Your task to perform on an android device: Open Yahoo.com Image 0: 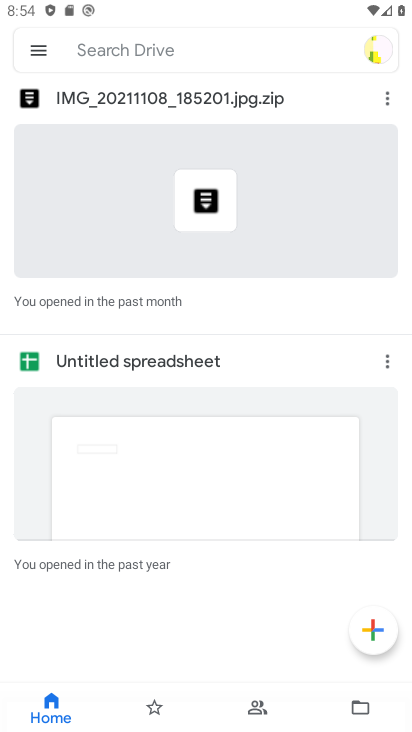
Step 0: press back button
Your task to perform on an android device: Open Yahoo.com Image 1: 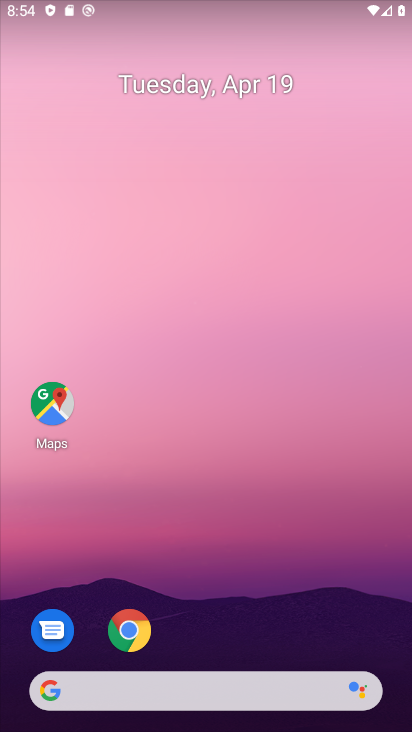
Step 1: click (134, 635)
Your task to perform on an android device: Open Yahoo.com Image 2: 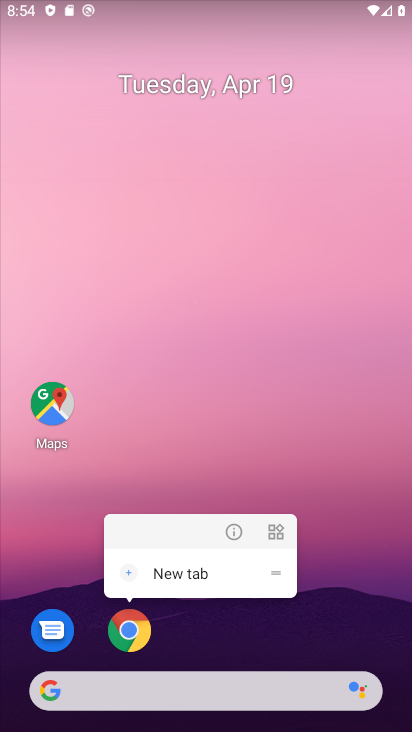
Step 2: click (131, 643)
Your task to perform on an android device: Open Yahoo.com Image 3: 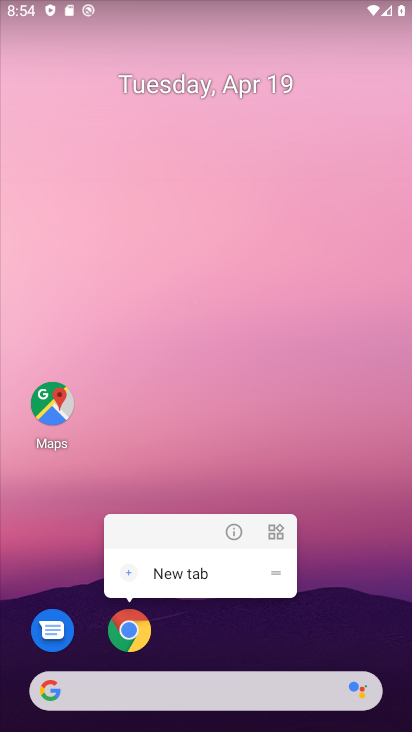
Step 3: click (130, 624)
Your task to perform on an android device: Open Yahoo.com Image 4: 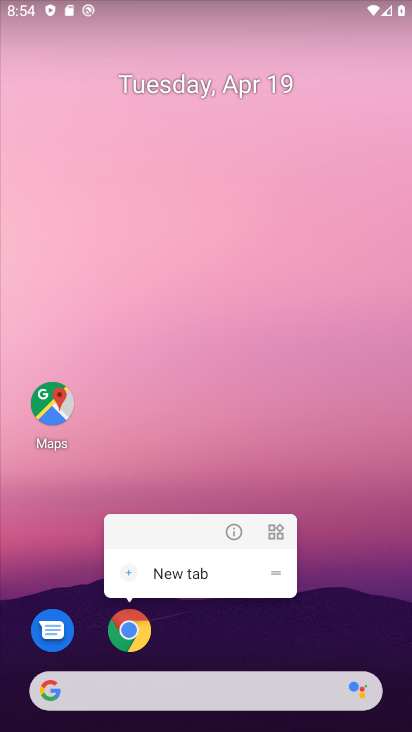
Step 4: click (129, 626)
Your task to perform on an android device: Open Yahoo.com Image 5: 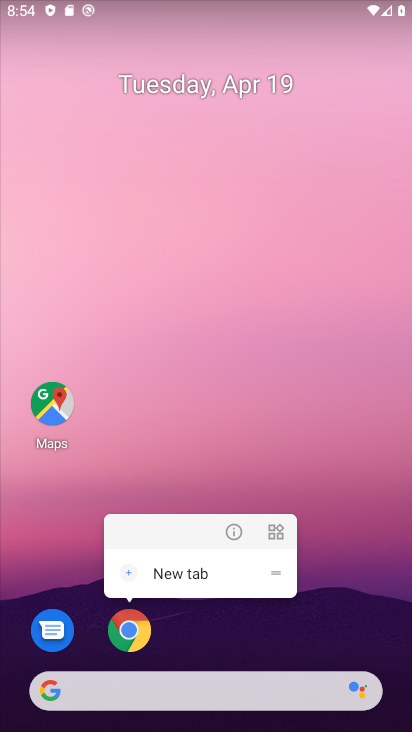
Step 5: click (126, 638)
Your task to perform on an android device: Open Yahoo.com Image 6: 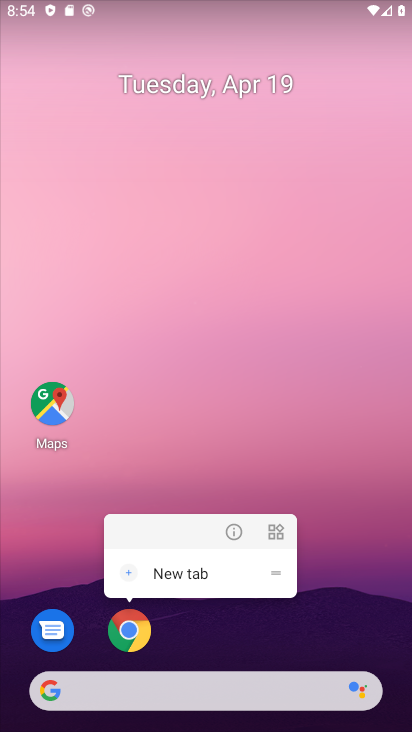
Step 6: click (124, 638)
Your task to perform on an android device: Open Yahoo.com Image 7: 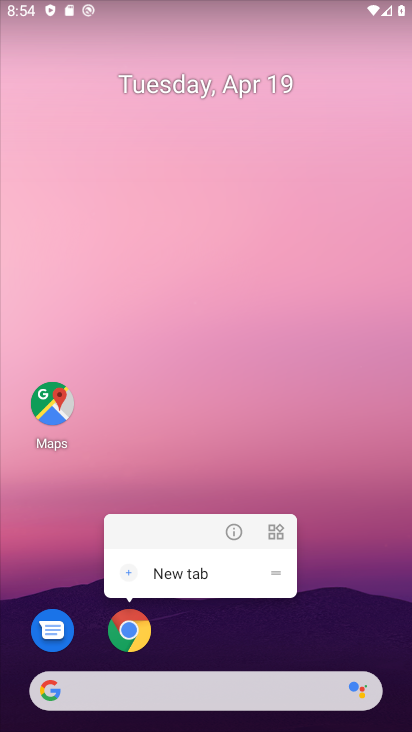
Step 7: click (124, 636)
Your task to perform on an android device: Open Yahoo.com Image 8: 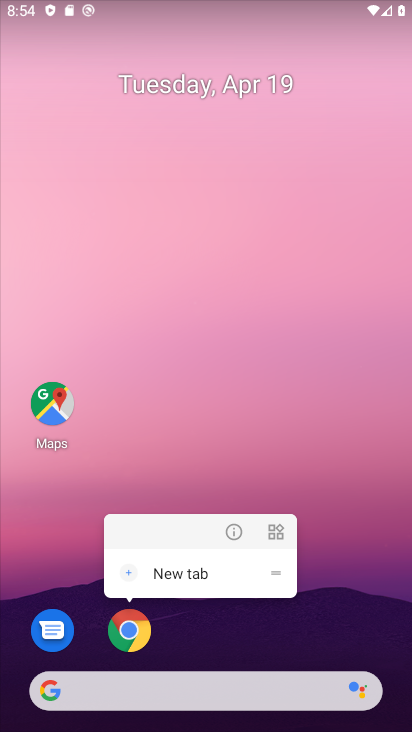
Step 8: click (124, 646)
Your task to perform on an android device: Open Yahoo.com Image 9: 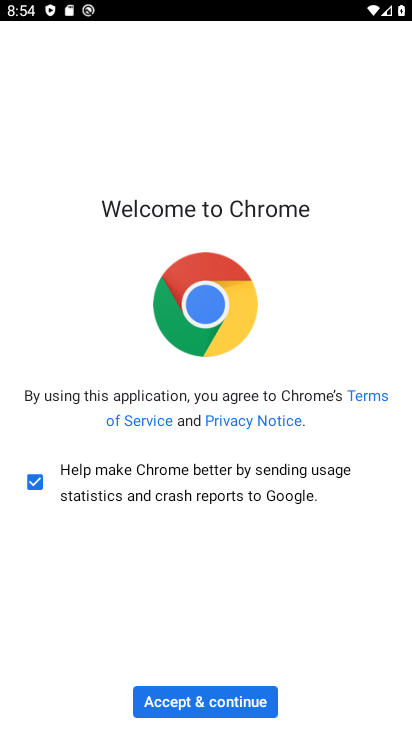
Step 9: click (242, 701)
Your task to perform on an android device: Open Yahoo.com Image 10: 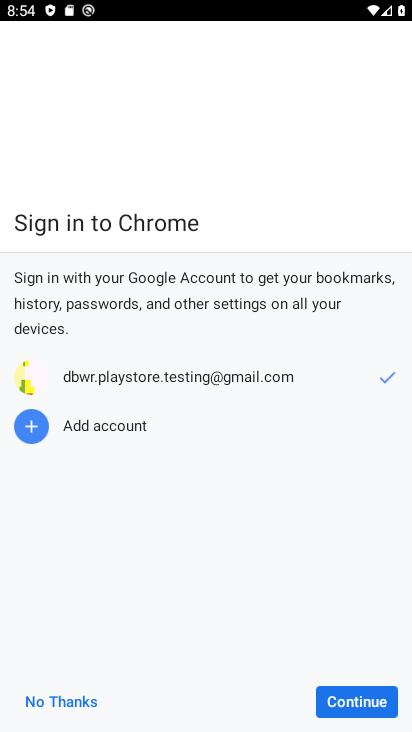
Step 10: click (368, 700)
Your task to perform on an android device: Open Yahoo.com Image 11: 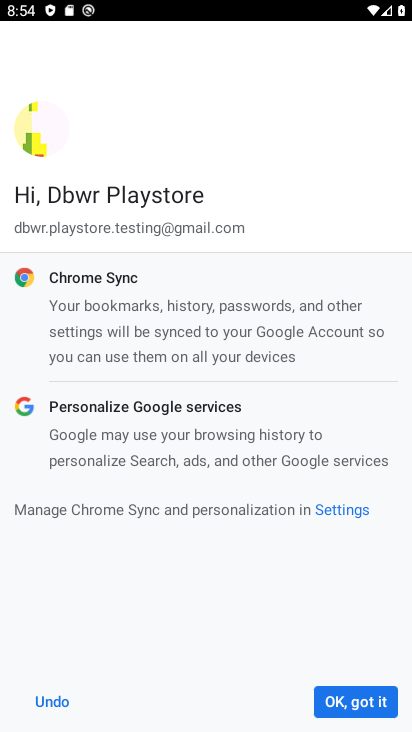
Step 11: click (351, 706)
Your task to perform on an android device: Open Yahoo.com Image 12: 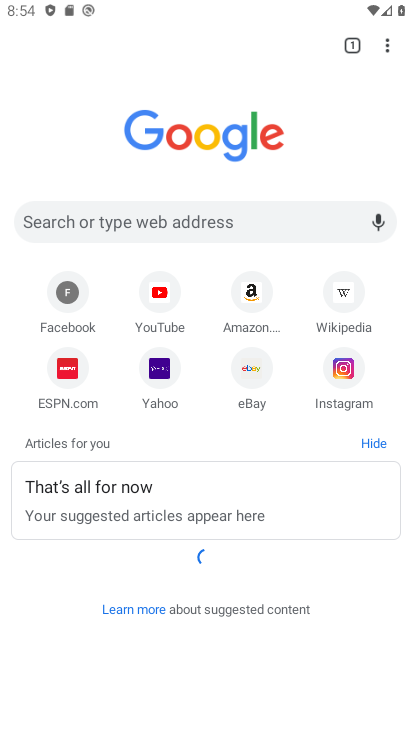
Step 12: click (154, 379)
Your task to perform on an android device: Open Yahoo.com Image 13: 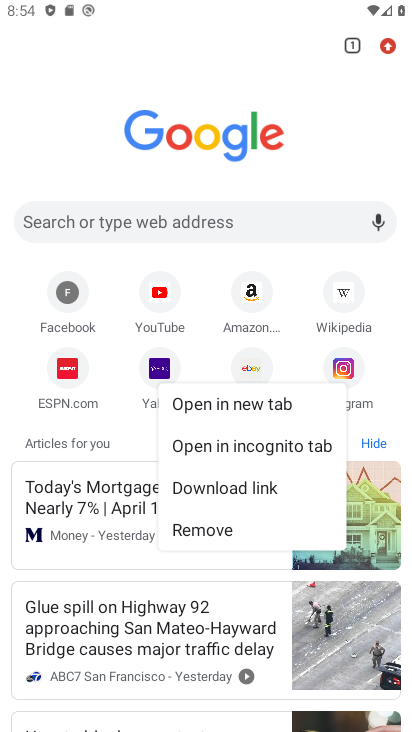
Step 13: click (154, 370)
Your task to perform on an android device: Open Yahoo.com Image 14: 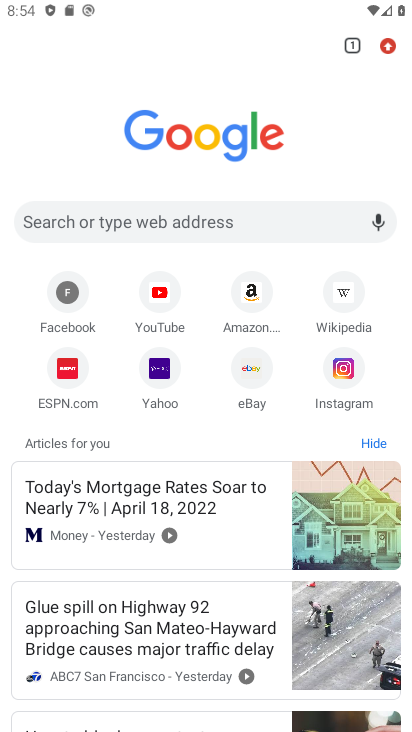
Step 14: click (163, 384)
Your task to perform on an android device: Open Yahoo.com Image 15: 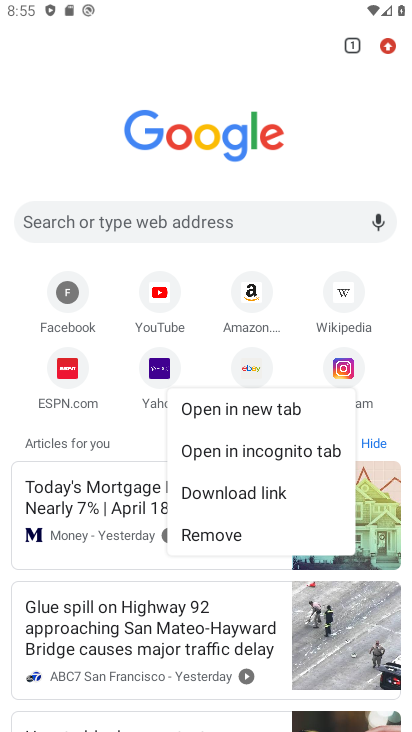
Step 15: click (163, 356)
Your task to perform on an android device: Open Yahoo.com Image 16: 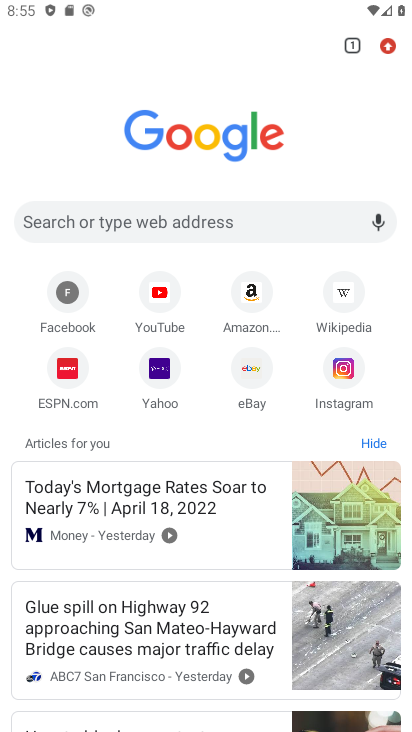
Step 16: click (165, 372)
Your task to perform on an android device: Open Yahoo.com Image 17: 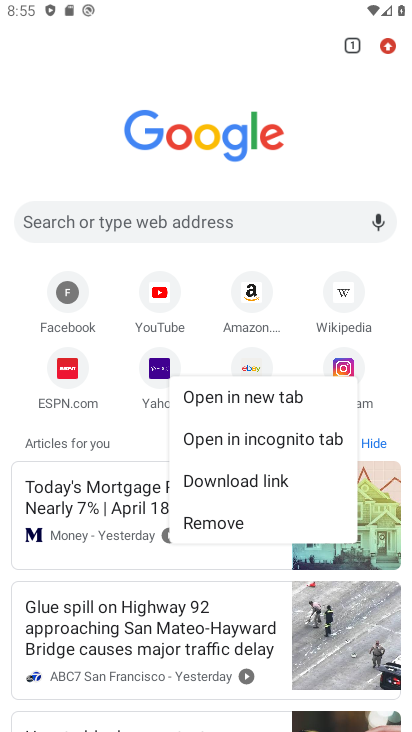
Step 17: click (164, 371)
Your task to perform on an android device: Open Yahoo.com Image 18: 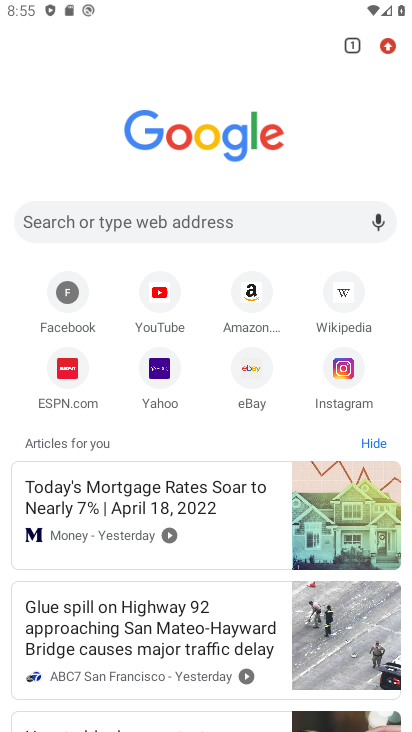
Step 18: click (157, 371)
Your task to perform on an android device: Open Yahoo.com Image 19: 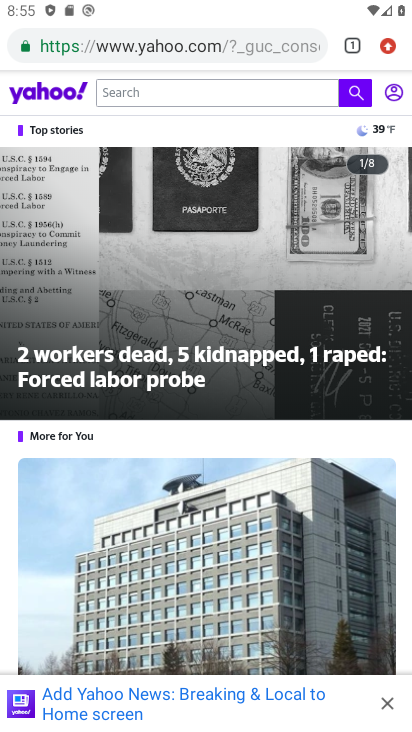
Step 19: task complete